Your task to perform on an android device: toggle wifi Image 0: 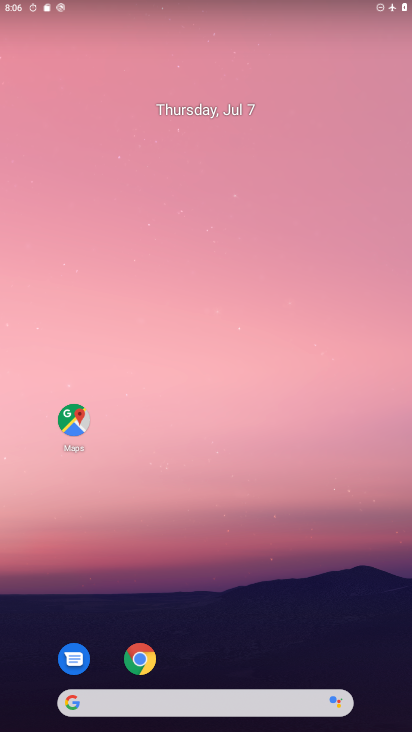
Step 0: drag from (372, 667) to (281, 57)
Your task to perform on an android device: toggle wifi Image 1: 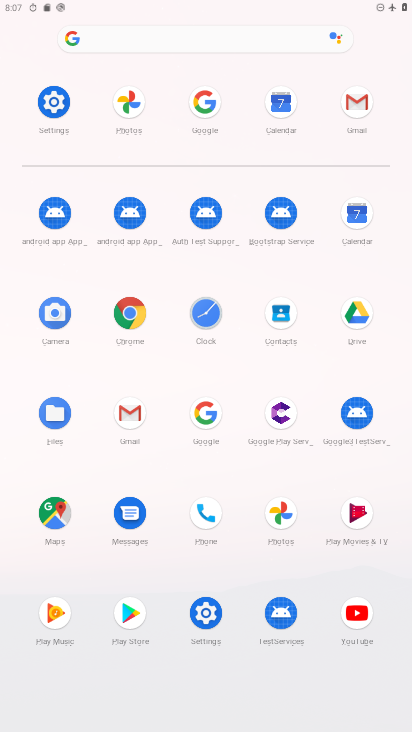
Step 1: click (54, 99)
Your task to perform on an android device: toggle wifi Image 2: 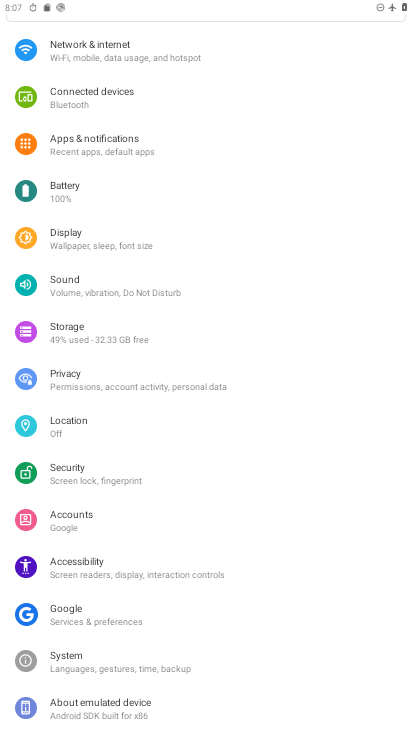
Step 2: click (108, 46)
Your task to perform on an android device: toggle wifi Image 3: 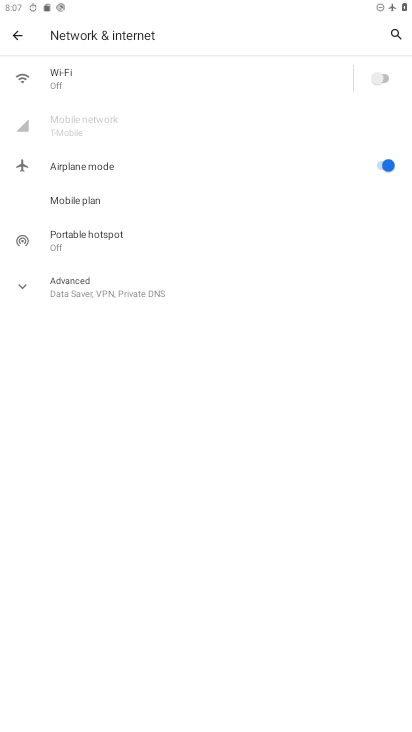
Step 3: click (372, 76)
Your task to perform on an android device: toggle wifi Image 4: 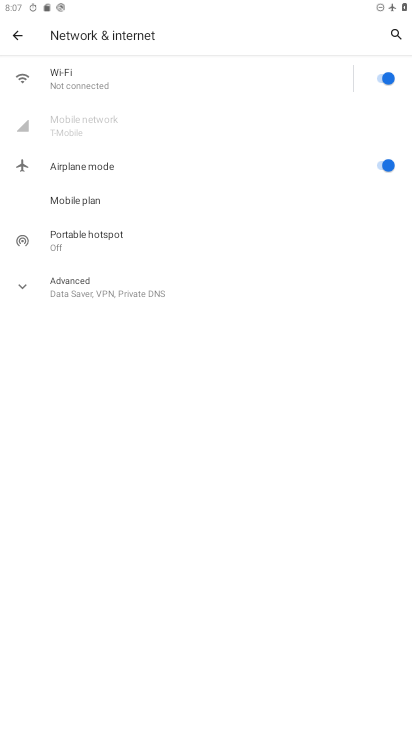
Step 4: task complete